Your task to perform on an android device: create a new album in the google photos Image 0: 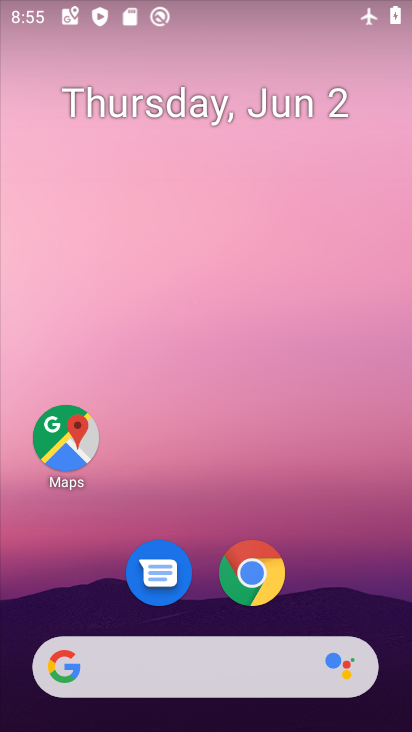
Step 0: drag from (370, 582) to (378, 313)
Your task to perform on an android device: create a new album in the google photos Image 1: 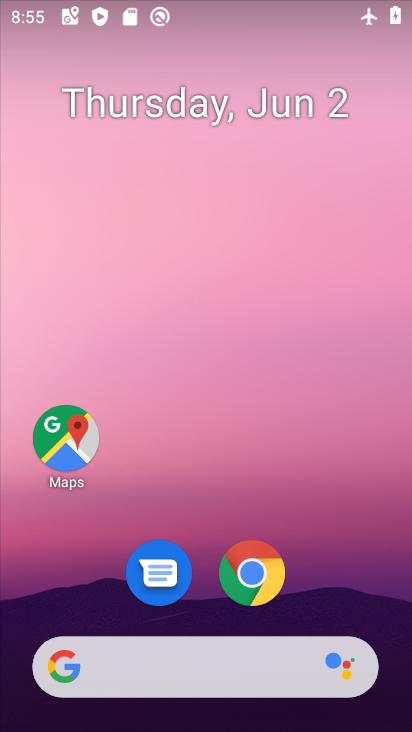
Step 1: drag from (381, 448) to (247, 4)
Your task to perform on an android device: create a new album in the google photos Image 2: 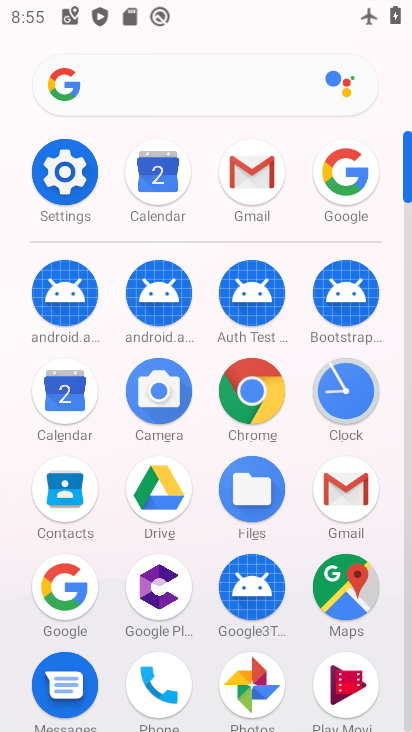
Step 2: click (406, 687)
Your task to perform on an android device: create a new album in the google photos Image 3: 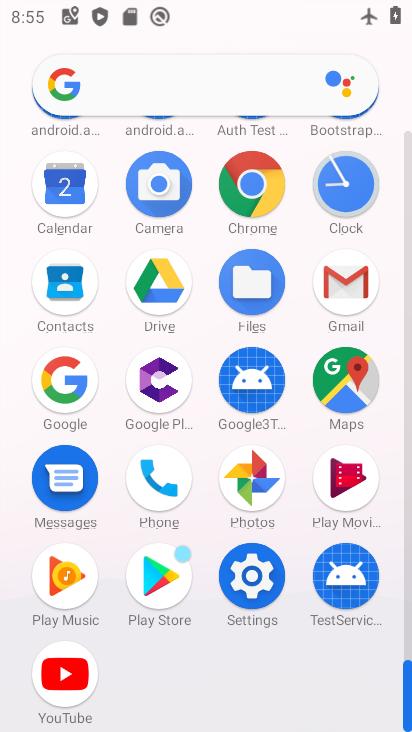
Step 3: click (234, 462)
Your task to perform on an android device: create a new album in the google photos Image 4: 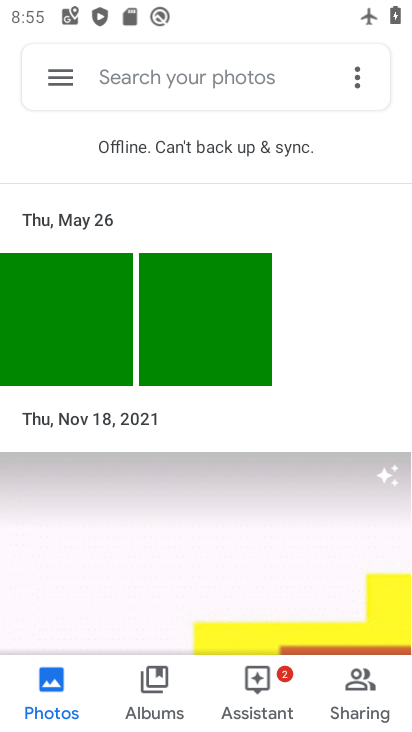
Step 4: click (227, 323)
Your task to perform on an android device: create a new album in the google photos Image 5: 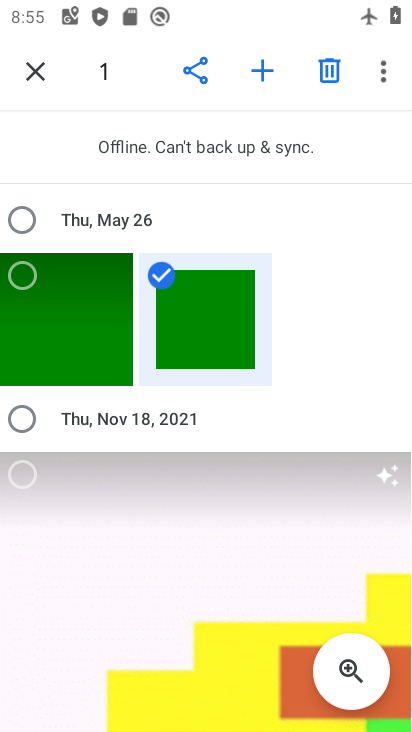
Step 5: click (111, 300)
Your task to perform on an android device: create a new album in the google photos Image 6: 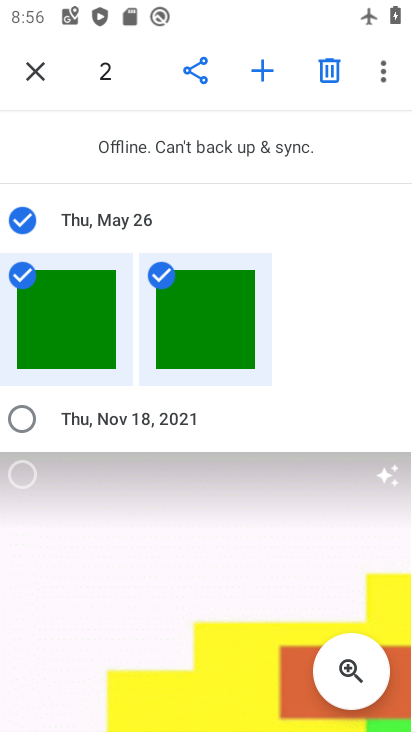
Step 6: click (260, 57)
Your task to perform on an android device: create a new album in the google photos Image 7: 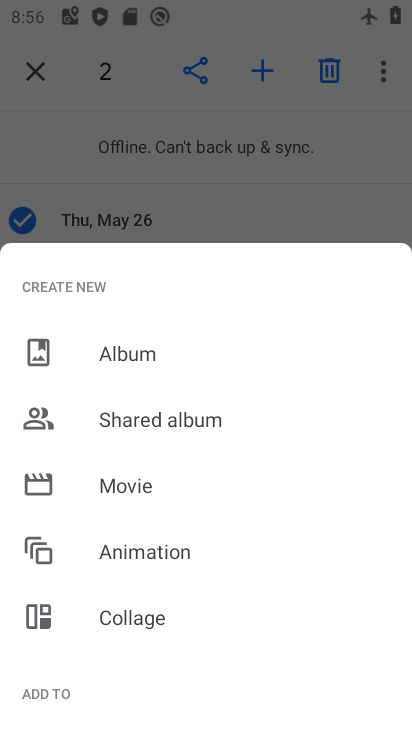
Step 7: click (100, 351)
Your task to perform on an android device: create a new album in the google photos Image 8: 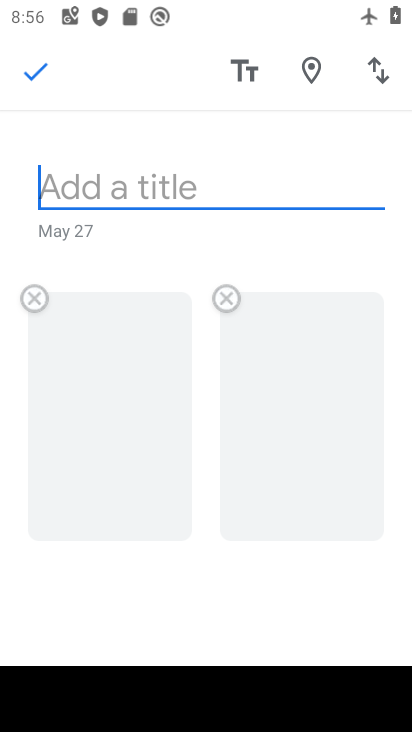
Step 8: type "bhmj"
Your task to perform on an android device: create a new album in the google photos Image 9: 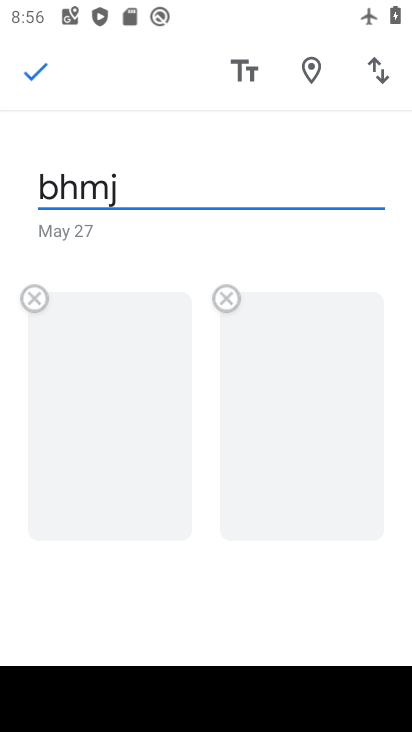
Step 9: click (25, 73)
Your task to perform on an android device: create a new album in the google photos Image 10: 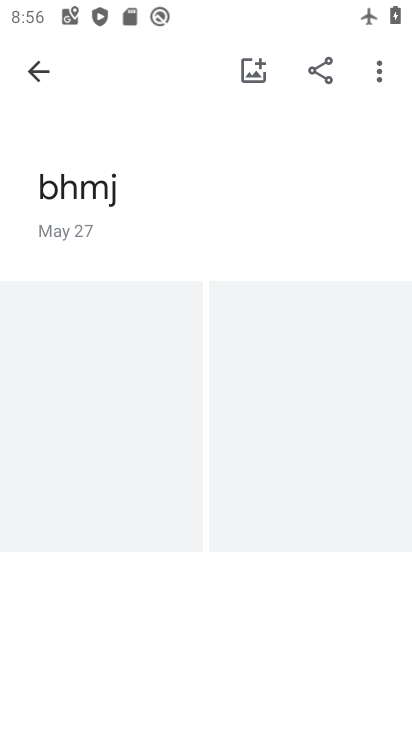
Step 10: task complete